Your task to perform on an android device: Show me the alarms in the clock app Image 0: 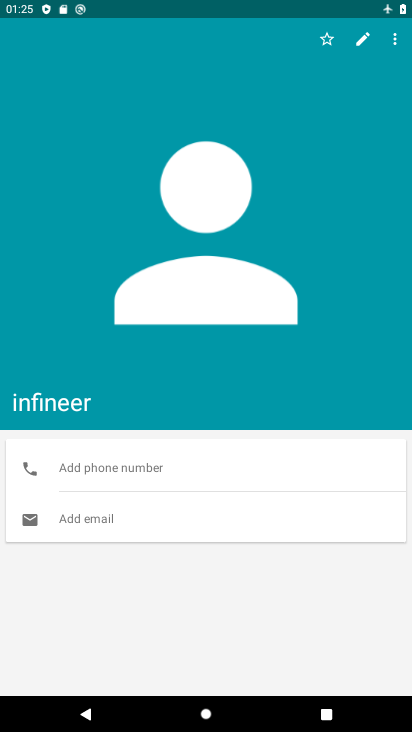
Step 0: press home button
Your task to perform on an android device: Show me the alarms in the clock app Image 1: 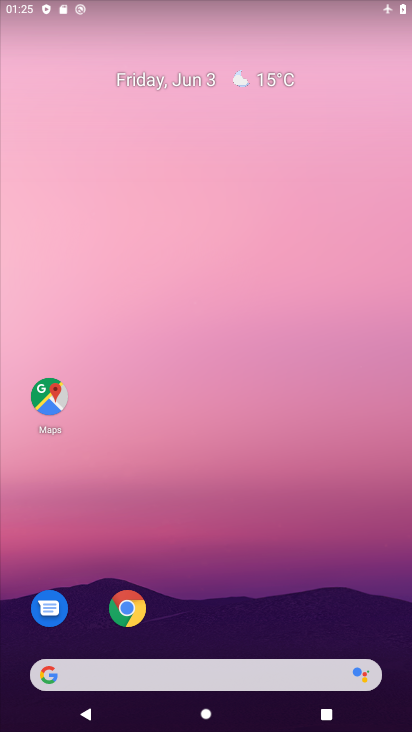
Step 1: drag from (339, 541) to (204, 201)
Your task to perform on an android device: Show me the alarms in the clock app Image 2: 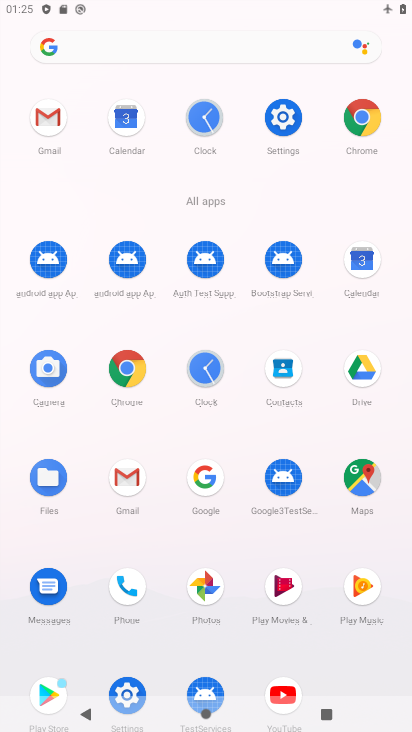
Step 2: click (203, 370)
Your task to perform on an android device: Show me the alarms in the clock app Image 3: 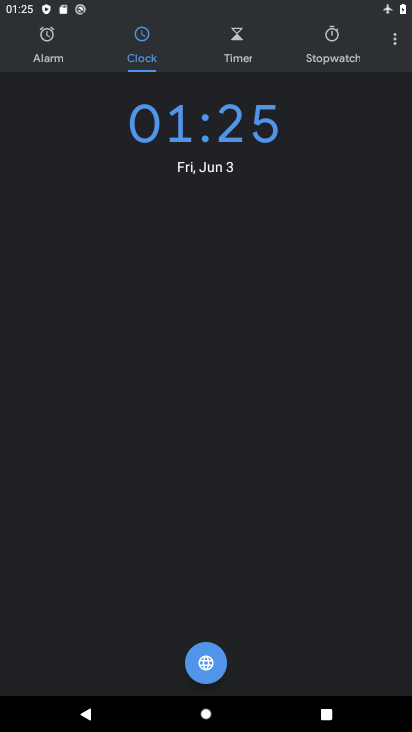
Step 3: click (61, 59)
Your task to perform on an android device: Show me the alarms in the clock app Image 4: 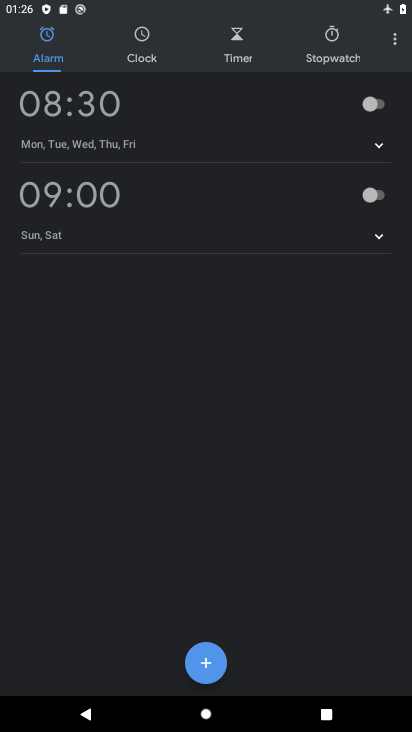
Step 4: task complete